Your task to perform on an android device: add a contact in the contacts app Image 0: 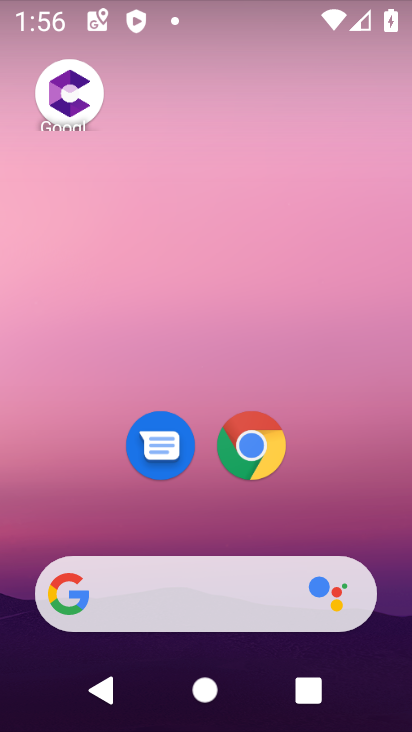
Step 0: drag from (222, 552) to (198, 40)
Your task to perform on an android device: add a contact in the contacts app Image 1: 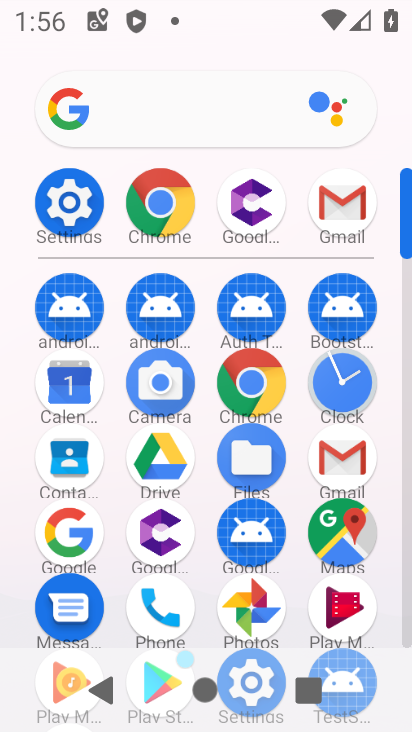
Step 1: click (175, 590)
Your task to perform on an android device: add a contact in the contacts app Image 2: 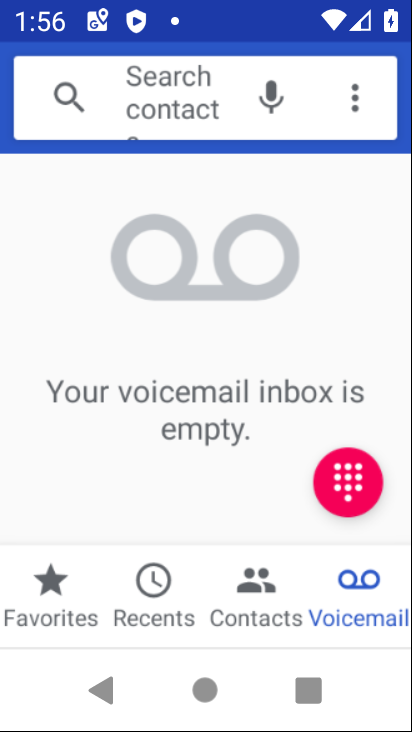
Step 2: click (267, 614)
Your task to perform on an android device: add a contact in the contacts app Image 3: 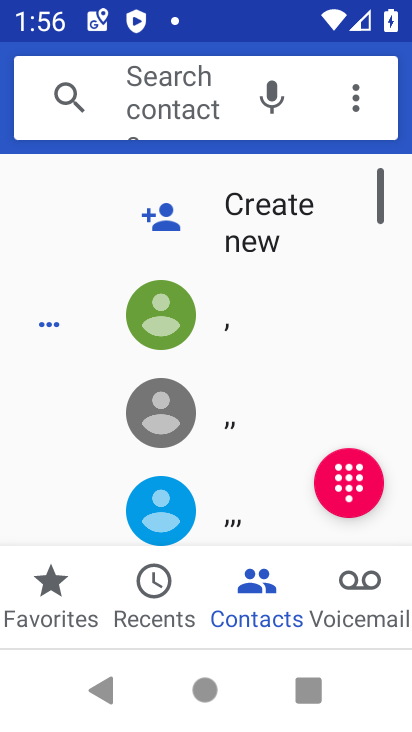
Step 3: click (252, 229)
Your task to perform on an android device: add a contact in the contacts app Image 4: 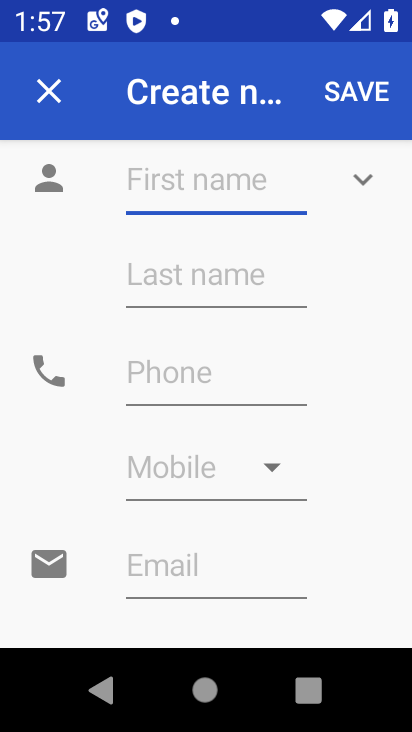
Step 4: type "uuy"
Your task to perform on an android device: add a contact in the contacts app Image 5: 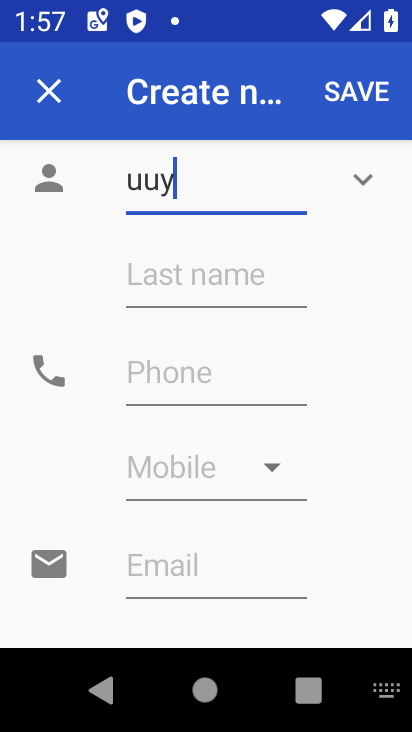
Step 5: click (257, 385)
Your task to perform on an android device: add a contact in the contacts app Image 6: 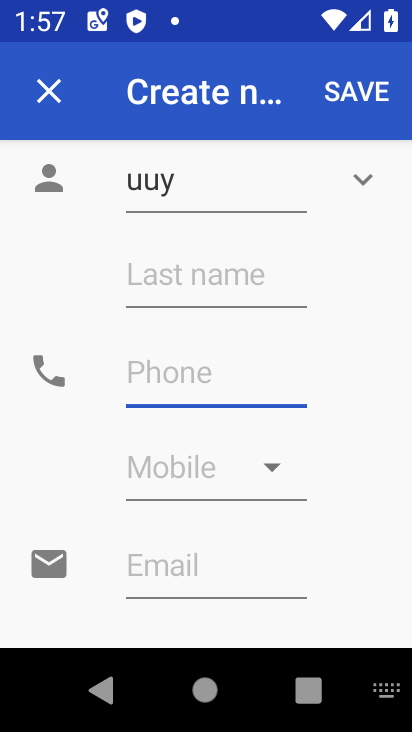
Step 6: type "888"
Your task to perform on an android device: add a contact in the contacts app Image 7: 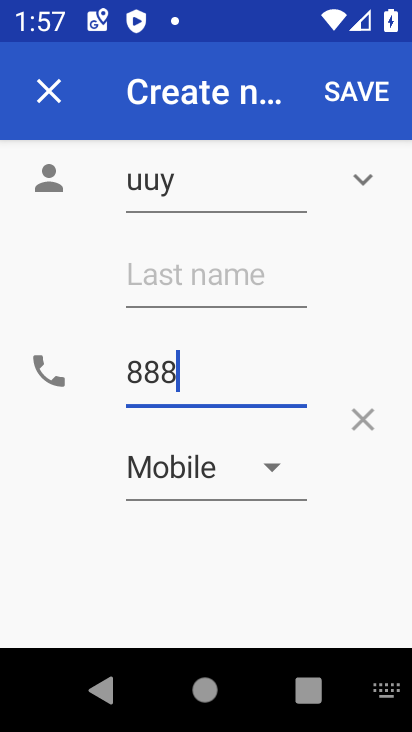
Step 7: type ""
Your task to perform on an android device: add a contact in the contacts app Image 8: 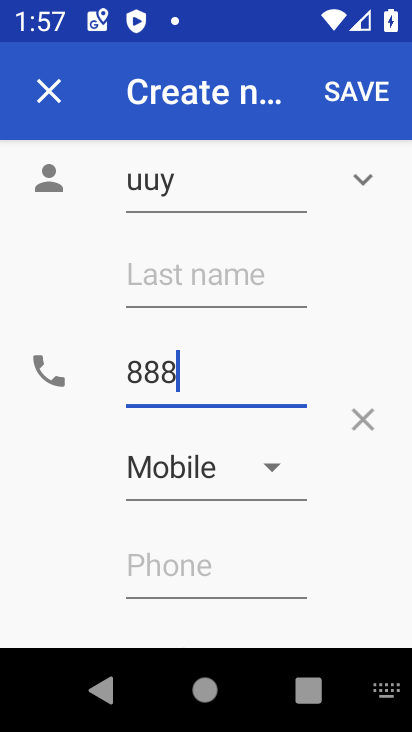
Step 8: click (372, 68)
Your task to perform on an android device: add a contact in the contacts app Image 9: 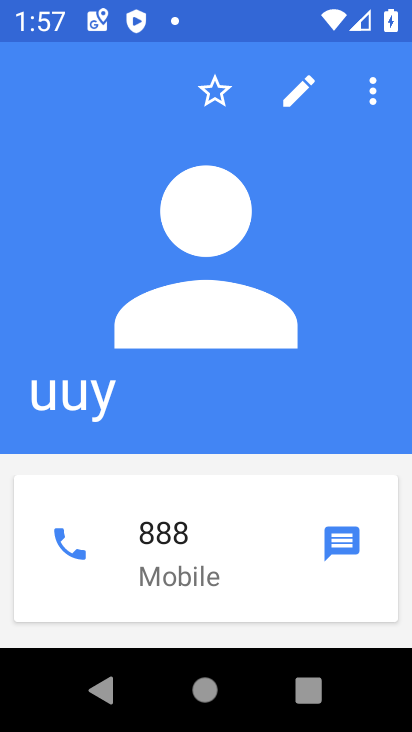
Step 9: task complete